Your task to perform on an android device: turn notification dots on Image 0: 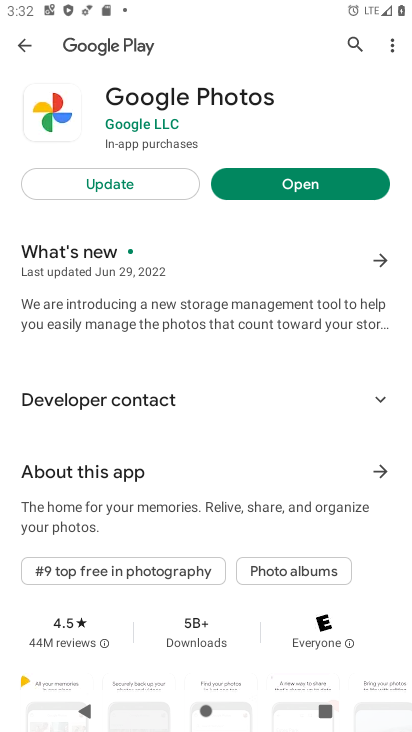
Step 0: press back button
Your task to perform on an android device: turn notification dots on Image 1: 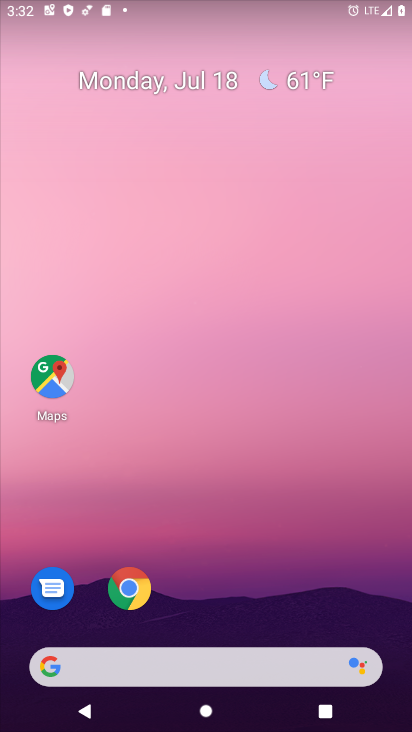
Step 1: drag from (274, 522) to (303, 57)
Your task to perform on an android device: turn notification dots on Image 2: 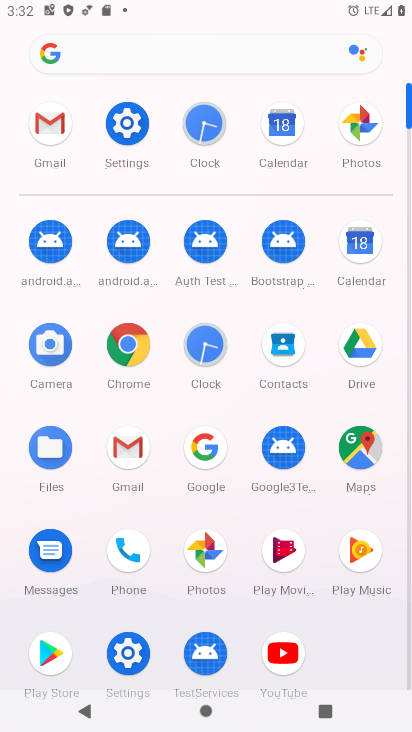
Step 2: click (134, 105)
Your task to perform on an android device: turn notification dots on Image 3: 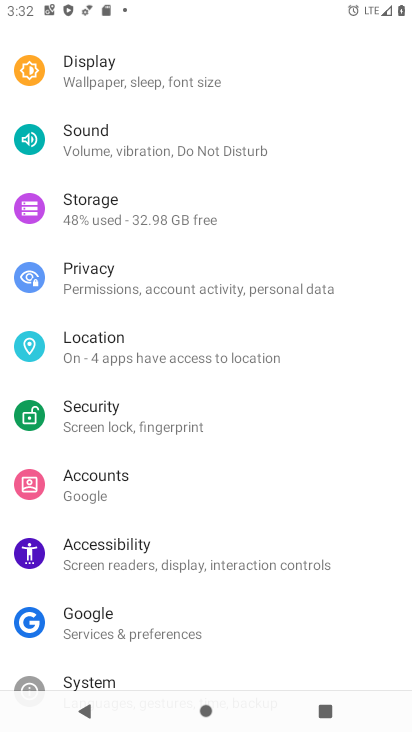
Step 3: drag from (121, 154) to (124, 644)
Your task to perform on an android device: turn notification dots on Image 4: 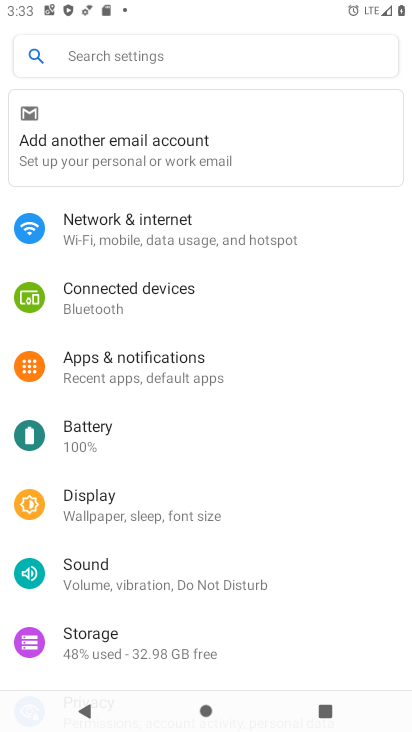
Step 4: click (121, 368)
Your task to perform on an android device: turn notification dots on Image 5: 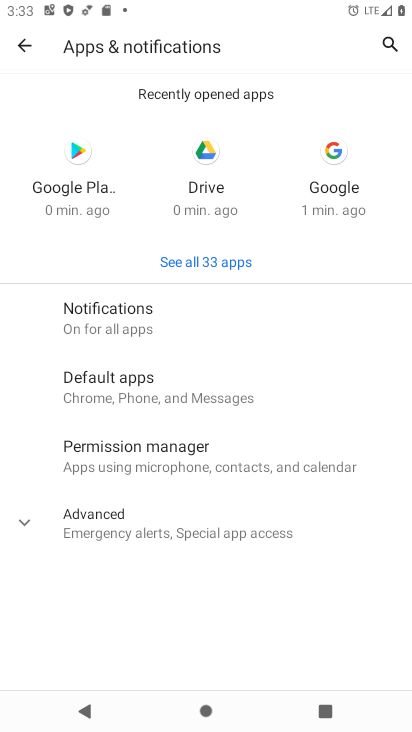
Step 5: click (153, 317)
Your task to perform on an android device: turn notification dots on Image 6: 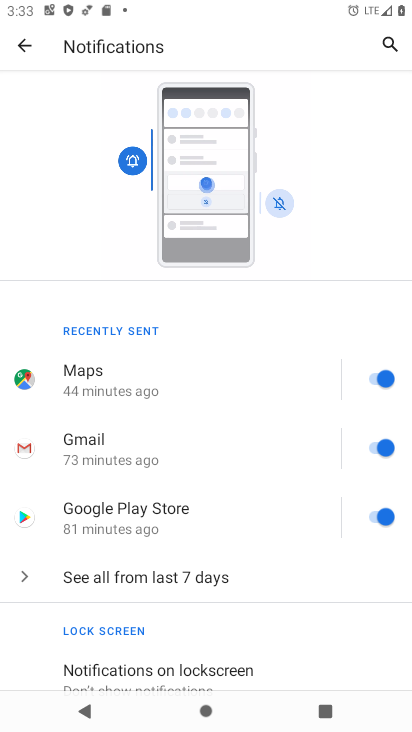
Step 6: drag from (179, 644) to (219, 326)
Your task to perform on an android device: turn notification dots on Image 7: 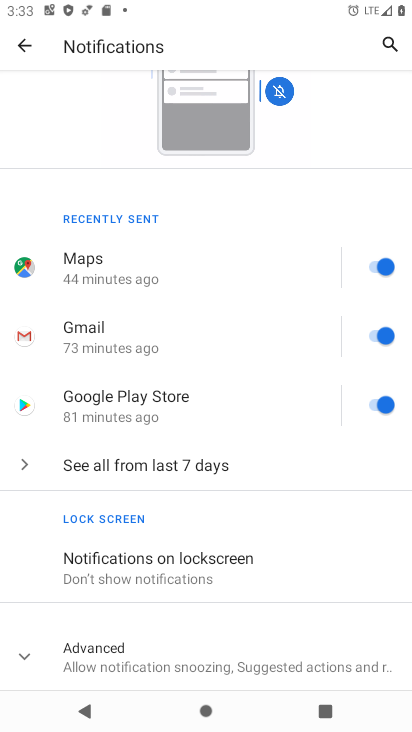
Step 7: click (116, 640)
Your task to perform on an android device: turn notification dots on Image 8: 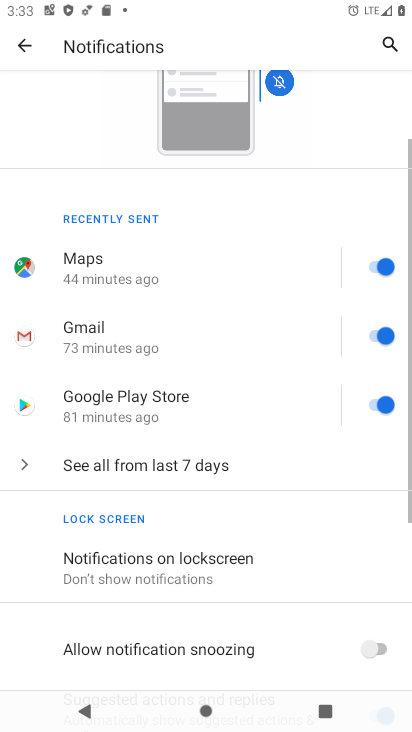
Step 8: drag from (125, 620) to (176, 217)
Your task to perform on an android device: turn notification dots on Image 9: 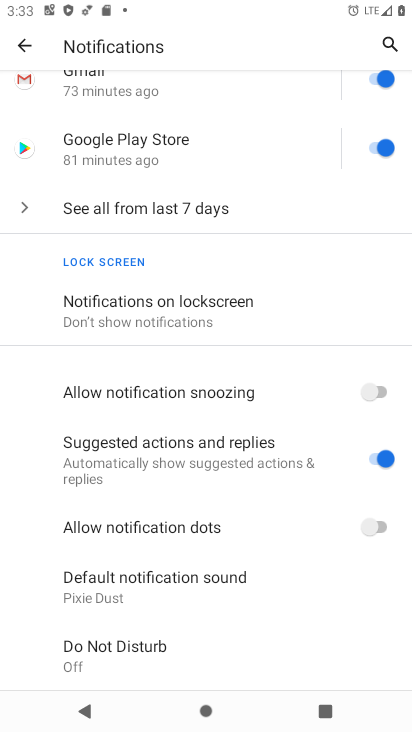
Step 9: click (372, 517)
Your task to perform on an android device: turn notification dots on Image 10: 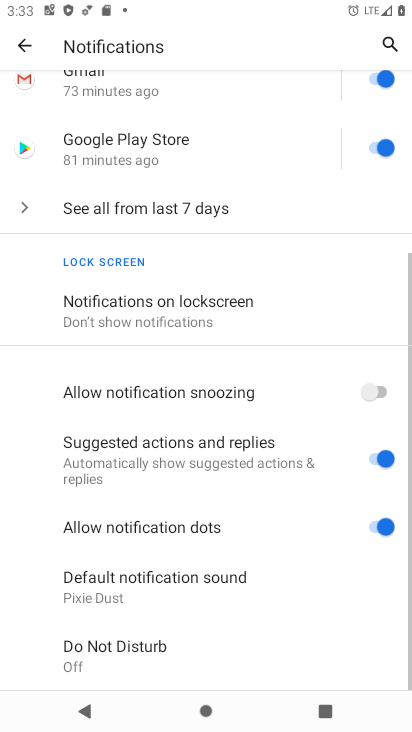
Step 10: task complete